Your task to perform on an android device: toggle location history Image 0: 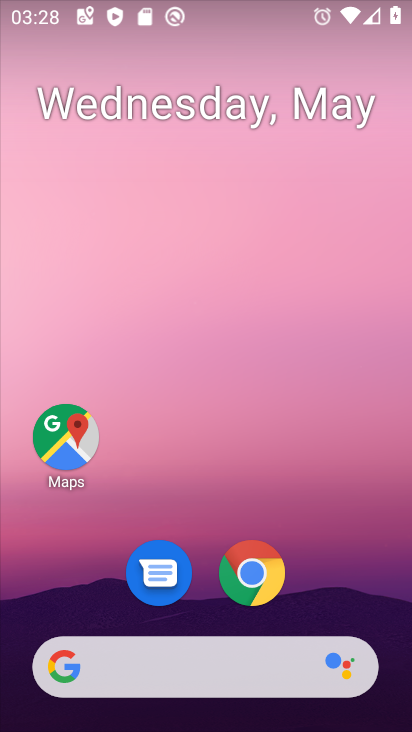
Step 0: drag from (203, 717) to (196, 23)
Your task to perform on an android device: toggle location history Image 1: 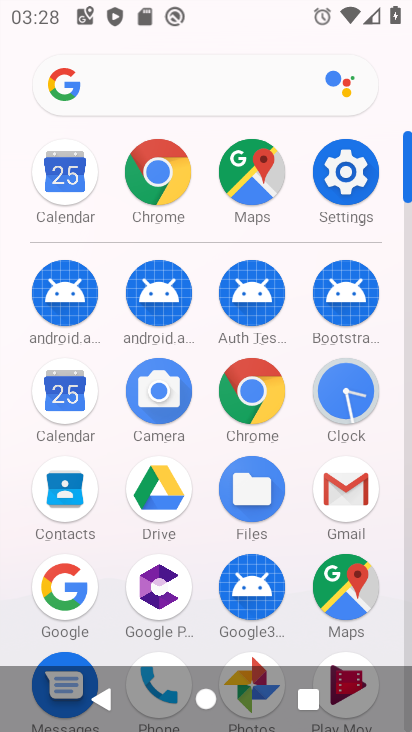
Step 1: click (335, 164)
Your task to perform on an android device: toggle location history Image 2: 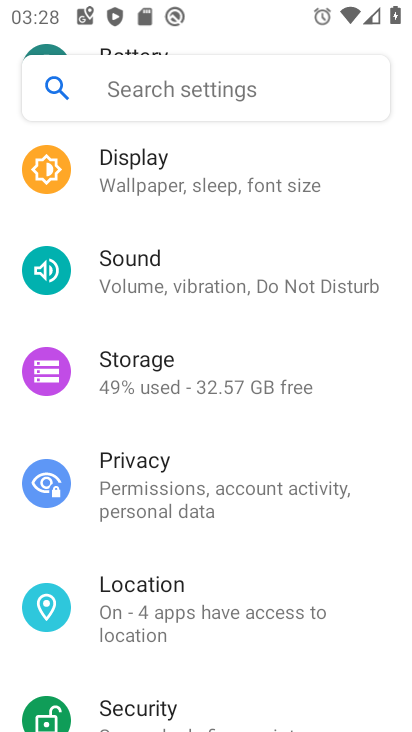
Step 2: click (145, 592)
Your task to perform on an android device: toggle location history Image 3: 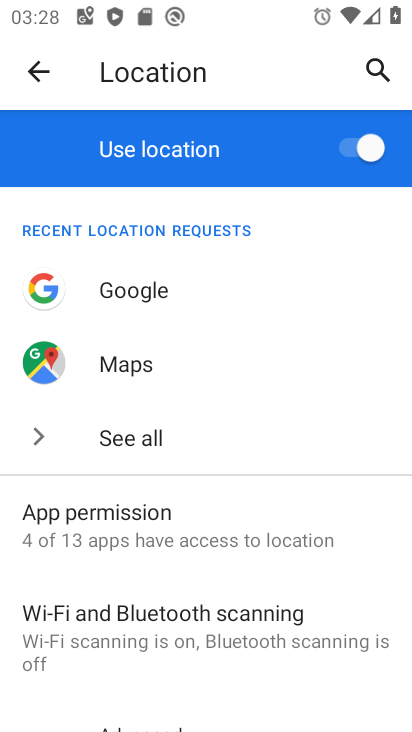
Step 3: drag from (171, 659) to (174, 302)
Your task to perform on an android device: toggle location history Image 4: 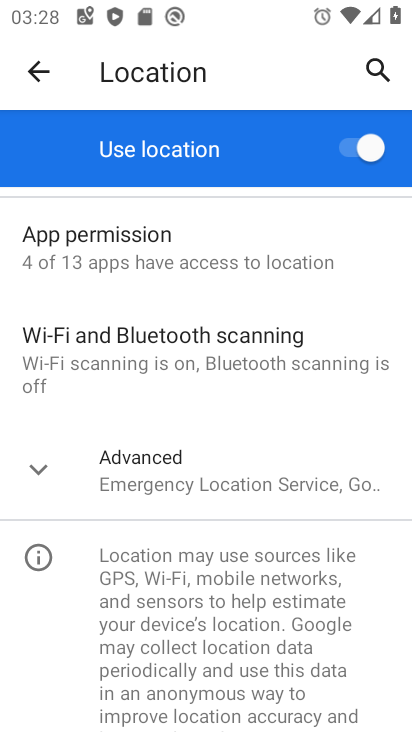
Step 4: click (159, 470)
Your task to perform on an android device: toggle location history Image 5: 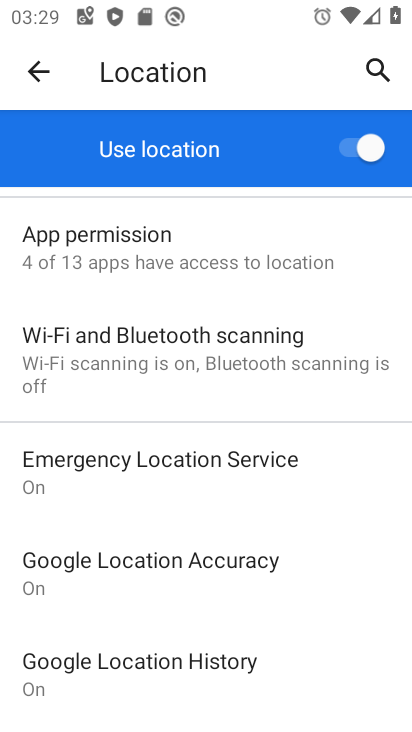
Step 5: click (146, 656)
Your task to perform on an android device: toggle location history Image 6: 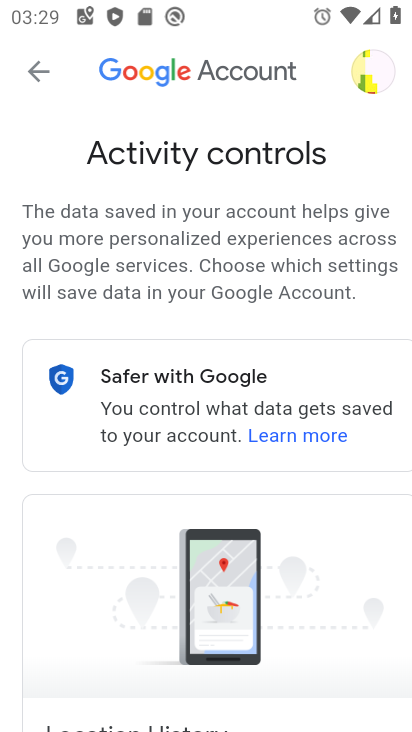
Step 6: drag from (213, 664) to (224, 323)
Your task to perform on an android device: toggle location history Image 7: 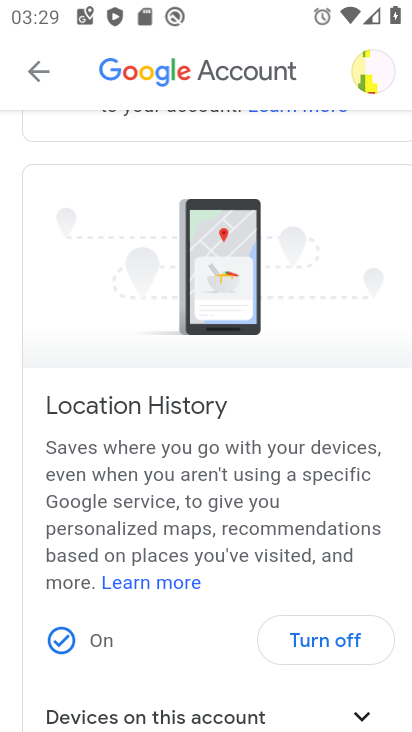
Step 7: click (314, 639)
Your task to perform on an android device: toggle location history Image 8: 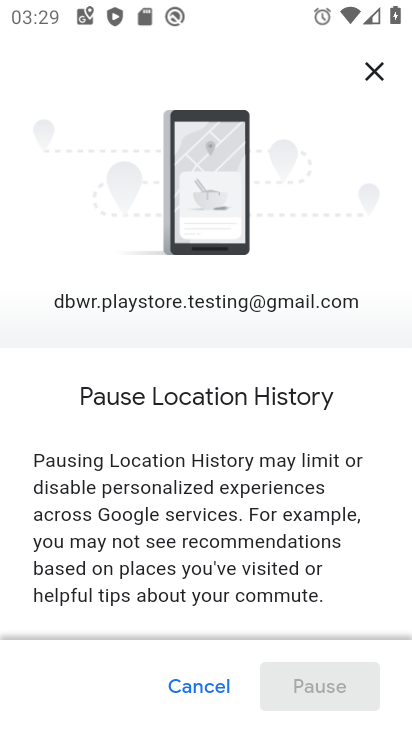
Step 8: drag from (261, 625) to (252, 122)
Your task to perform on an android device: toggle location history Image 9: 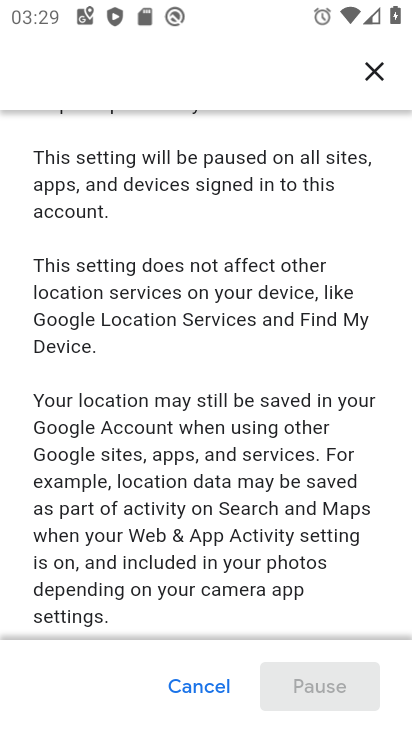
Step 9: drag from (251, 612) to (258, 182)
Your task to perform on an android device: toggle location history Image 10: 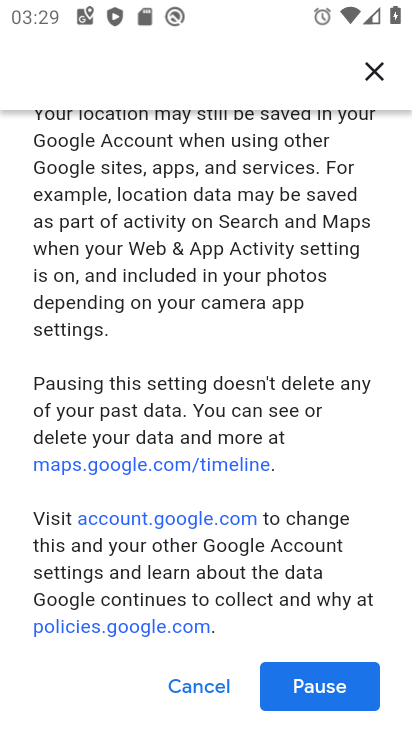
Step 10: click (314, 681)
Your task to perform on an android device: toggle location history Image 11: 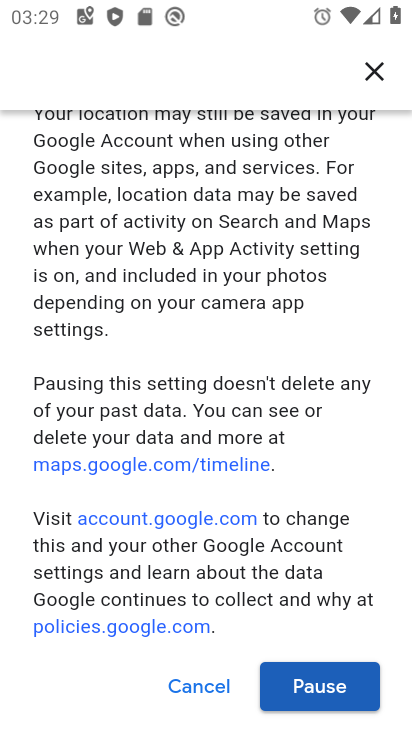
Step 11: click (332, 681)
Your task to perform on an android device: toggle location history Image 12: 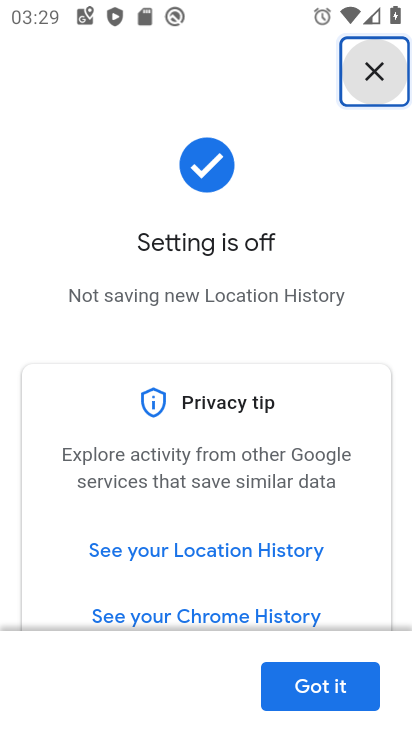
Step 12: click (323, 684)
Your task to perform on an android device: toggle location history Image 13: 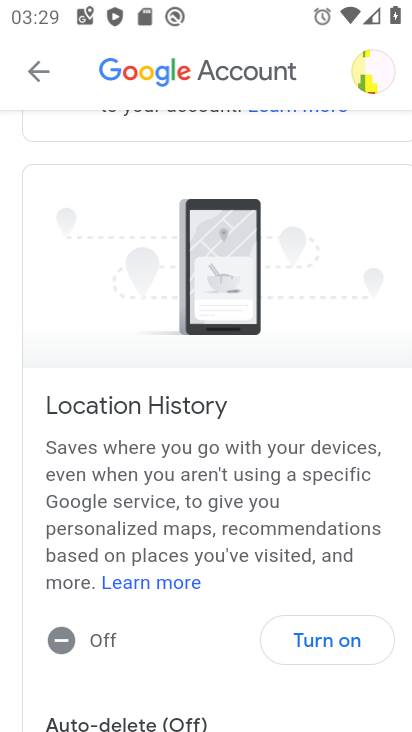
Step 13: task complete